Your task to perform on an android device: all mails in gmail Image 0: 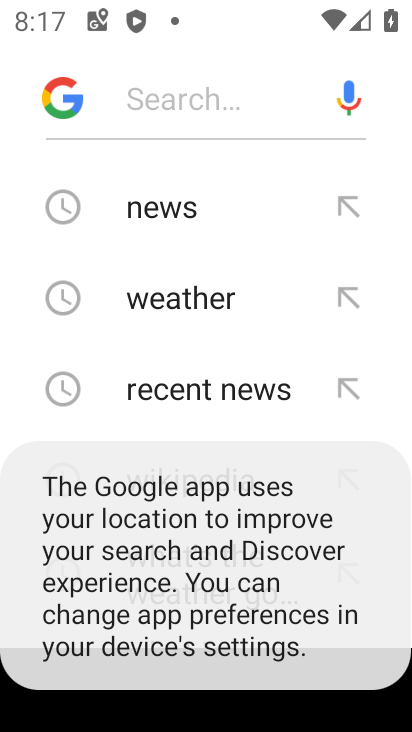
Step 0: press home button
Your task to perform on an android device: all mails in gmail Image 1: 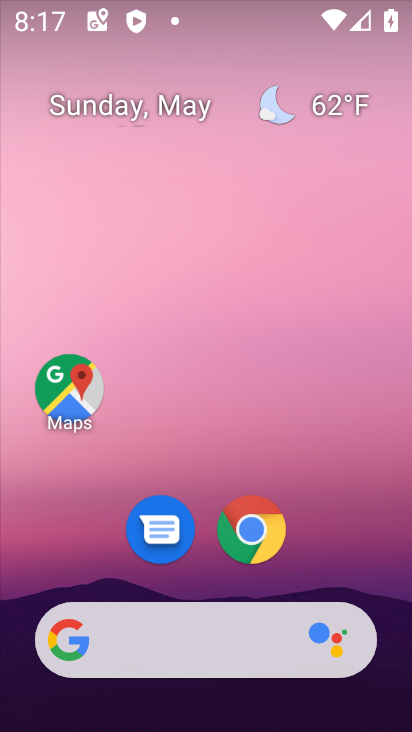
Step 1: drag from (348, 595) to (349, 136)
Your task to perform on an android device: all mails in gmail Image 2: 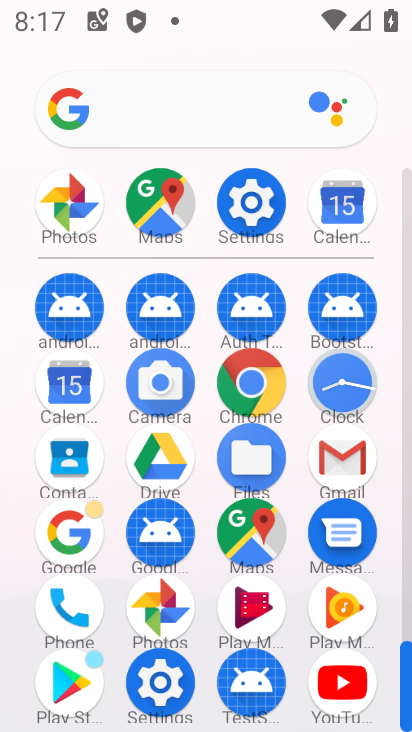
Step 2: drag from (286, 643) to (274, 311)
Your task to perform on an android device: all mails in gmail Image 3: 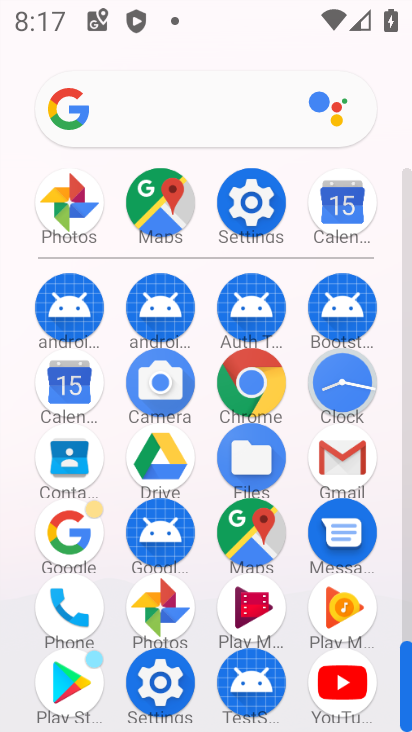
Step 3: click (317, 450)
Your task to perform on an android device: all mails in gmail Image 4: 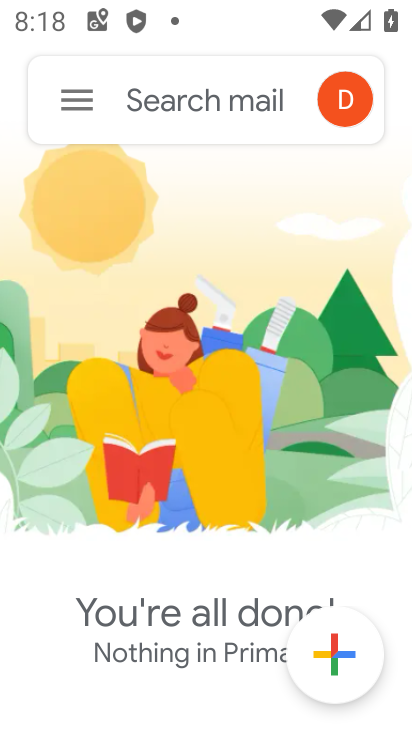
Step 4: click (82, 91)
Your task to perform on an android device: all mails in gmail Image 5: 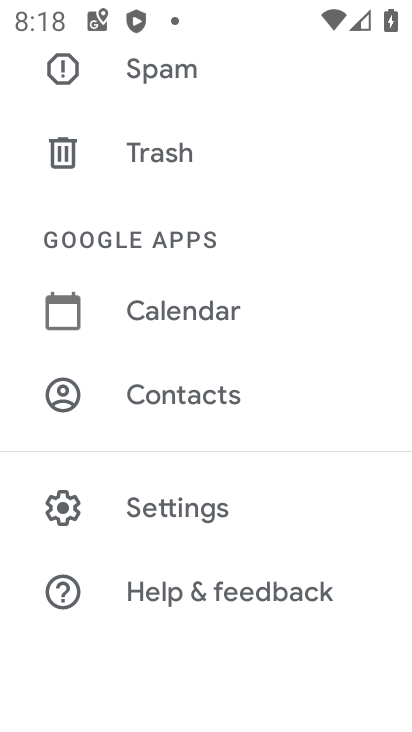
Step 5: drag from (279, 125) to (349, 604)
Your task to perform on an android device: all mails in gmail Image 6: 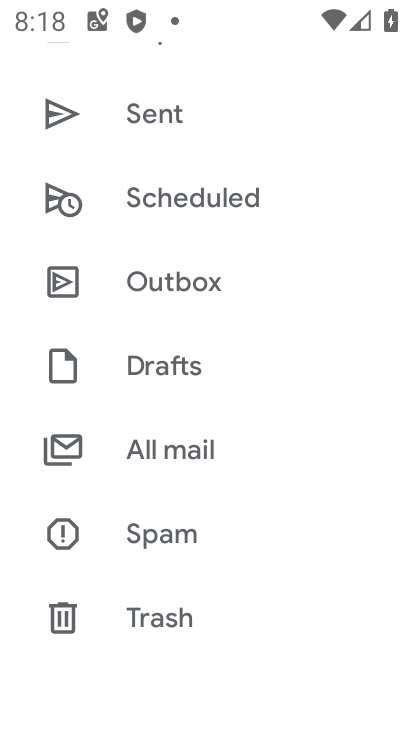
Step 6: drag from (293, 178) to (335, 635)
Your task to perform on an android device: all mails in gmail Image 7: 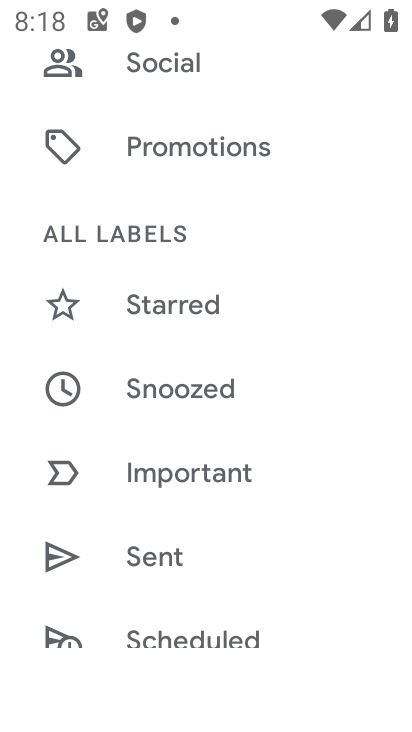
Step 7: drag from (313, 634) to (320, 387)
Your task to perform on an android device: all mails in gmail Image 8: 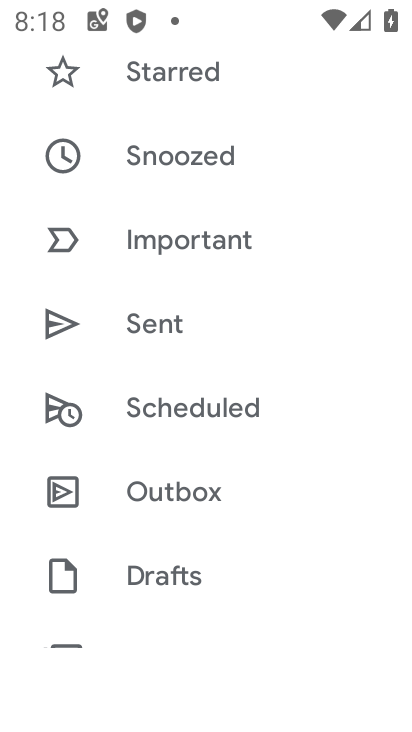
Step 8: drag from (254, 535) to (292, 287)
Your task to perform on an android device: all mails in gmail Image 9: 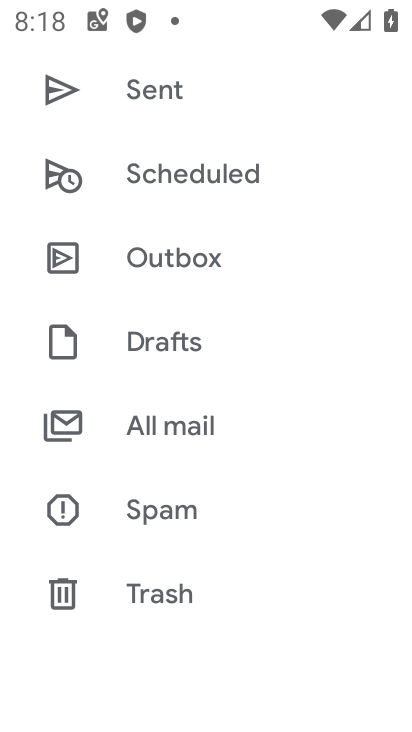
Step 9: click (182, 438)
Your task to perform on an android device: all mails in gmail Image 10: 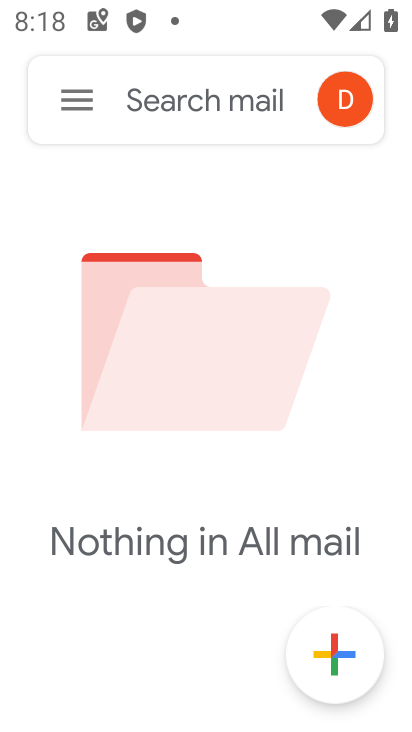
Step 10: task complete